Your task to perform on an android device: Open the phone app and click the voicemail tab. Image 0: 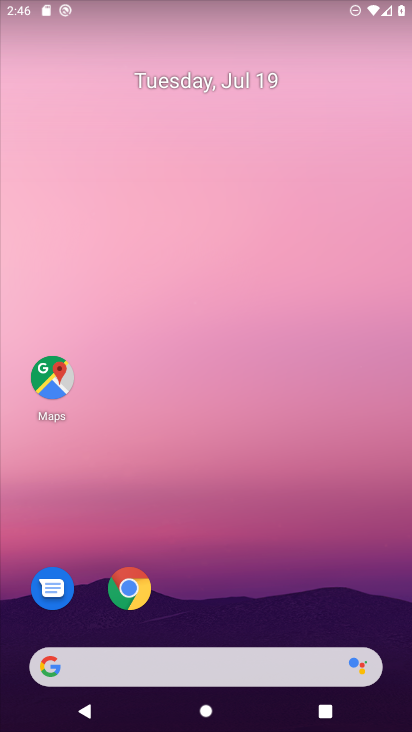
Step 0: drag from (189, 384) to (211, 109)
Your task to perform on an android device: Open the phone app and click the voicemail tab. Image 1: 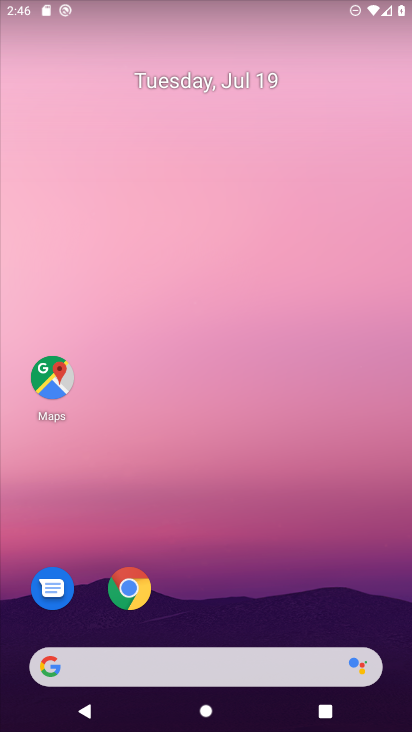
Step 1: drag from (210, 586) to (222, 53)
Your task to perform on an android device: Open the phone app and click the voicemail tab. Image 2: 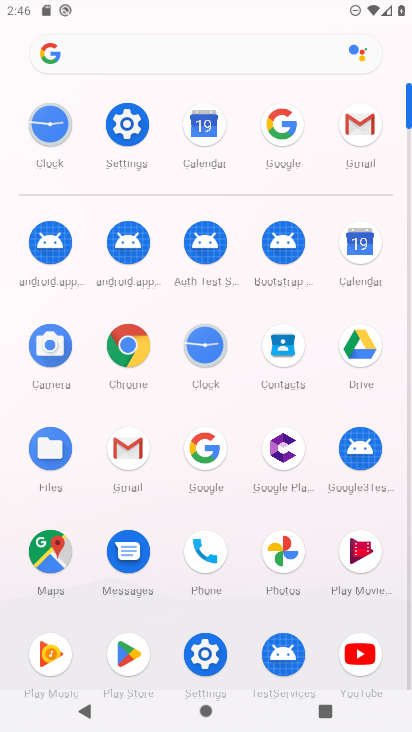
Step 2: click (202, 541)
Your task to perform on an android device: Open the phone app and click the voicemail tab. Image 3: 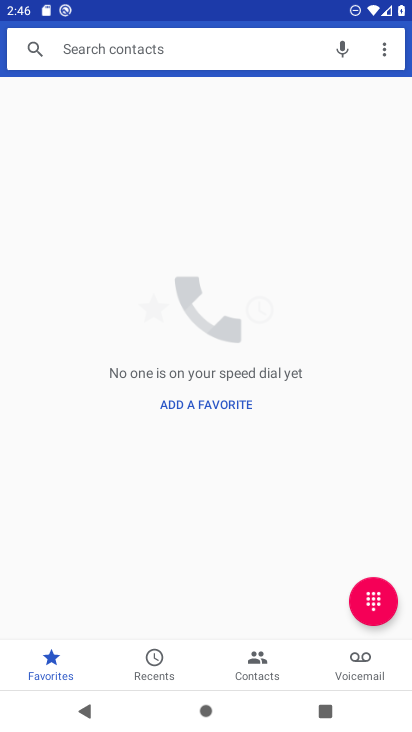
Step 3: click (361, 669)
Your task to perform on an android device: Open the phone app and click the voicemail tab. Image 4: 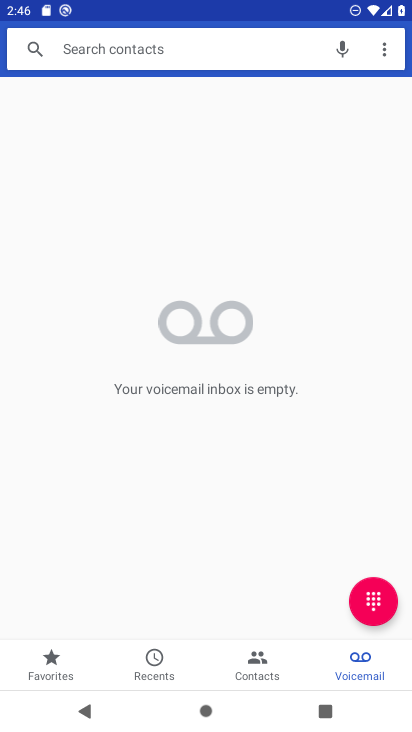
Step 4: task complete